Your task to perform on an android device: set the timer Image 0: 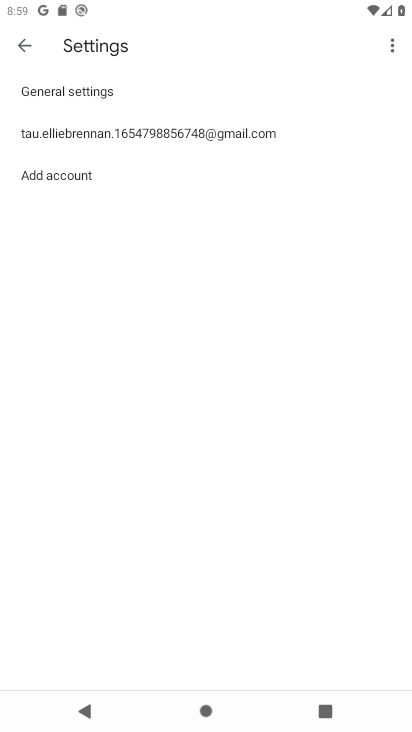
Step 0: press home button
Your task to perform on an android device: set the timer Image 1: 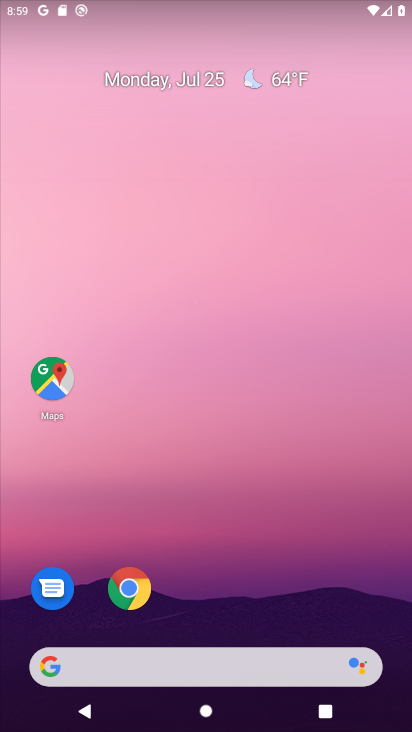
Step 1: drag from (222, 632) to (191, 112)
Your task to perform on an android device: set the timer Image 2: 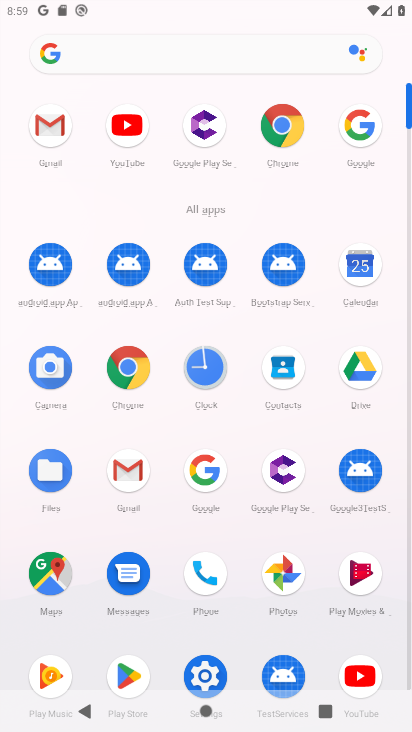
Step 2: click (211, 355)
Your task to perform on an android device: set the timer Image 3: 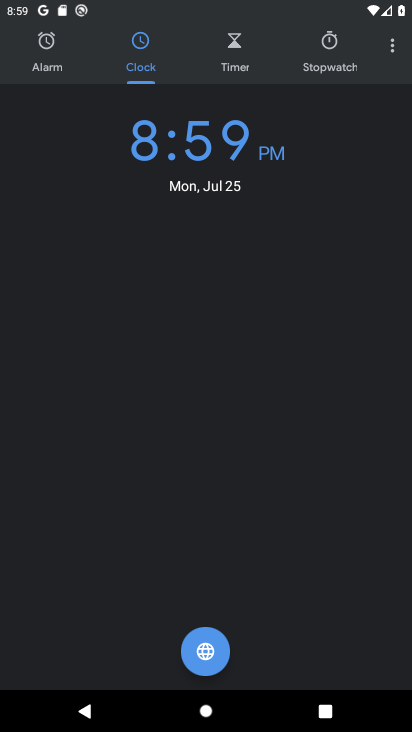
Step 3: click (241, 69)
Your task to perform on an android device: set the timer Image 4: 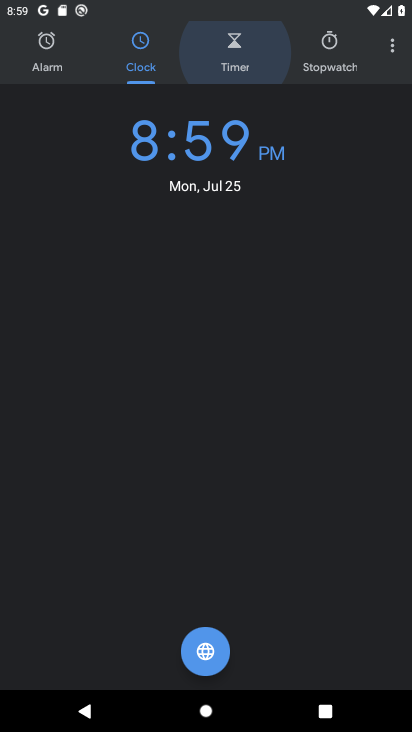
Step 4: click (241, 69)
Your task to perform on an android device: set the timer Image 5: 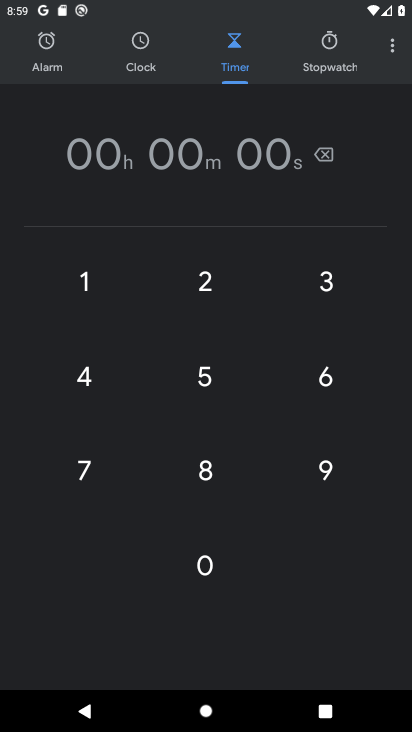
Step 5: click (91, 377)
Your task to perform on an android device: set the timer Image 6: 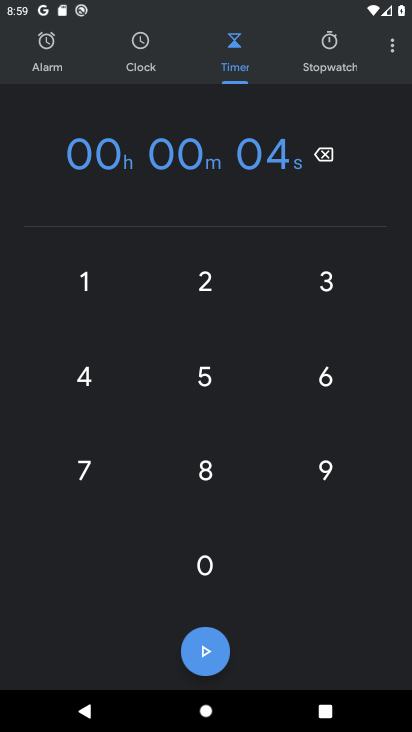
Step 6: click (203, 367)
Your task to perform on an android device: set the timer Image 7: 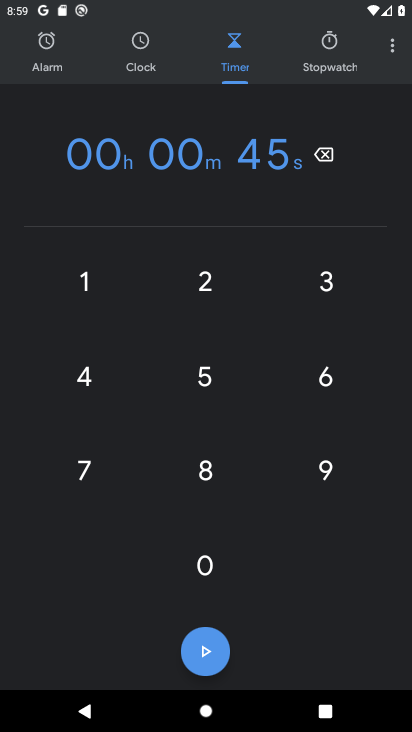
Step 7: click (202, 463)
Your task to perform on an android device: set the timer Image 8: 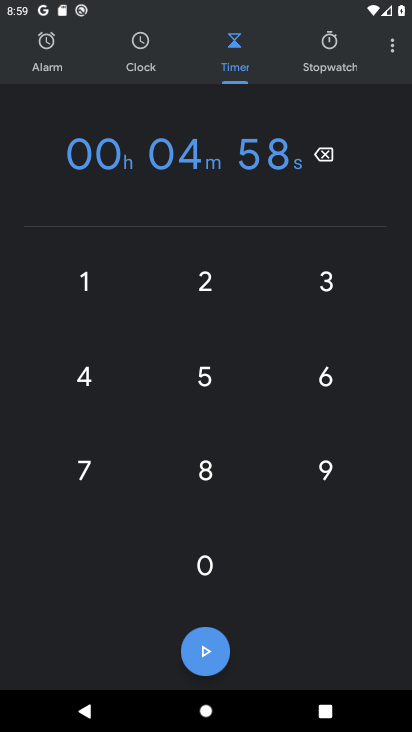
Step 8: click (340, 456)
Your task to perform on an android device: set the timer Image 9: 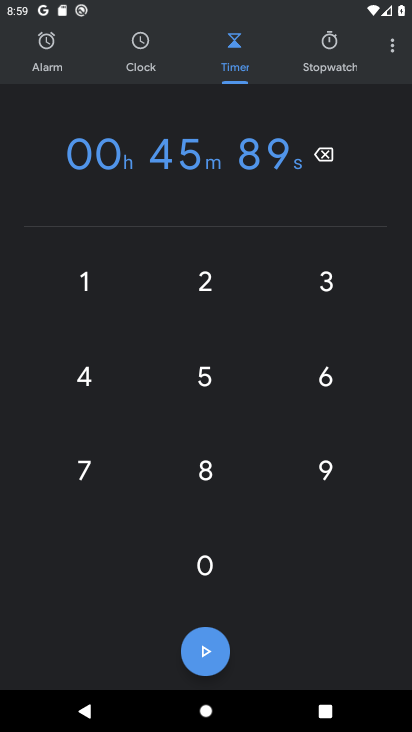
Step 9: click (216, 650)
Your task to perform on an android device: set the timer Image 10: 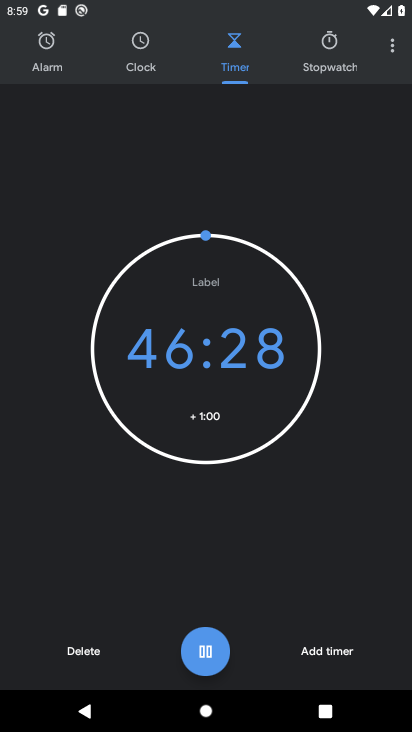
Step 10: task complete